Your task to perform on an android device: Do I have any events today? Image 0: 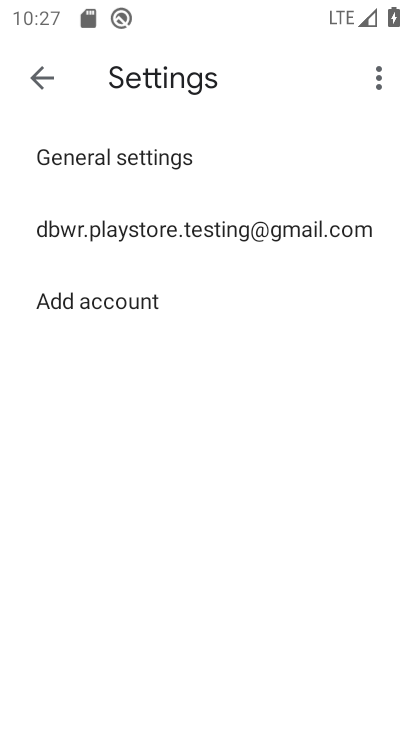
Step 0: press home button
Your task to perform on an android device: Do I have any events today? Image 1: 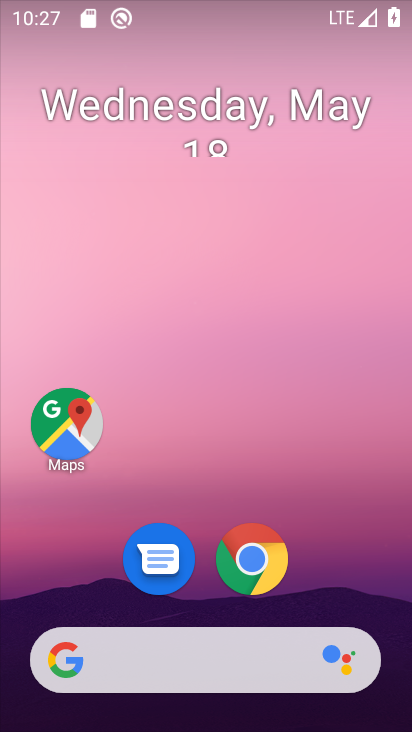
Step 1: drag from (208, 573) to (220, 183)
Your task to perform on an android device: Do I have any events today? Image 2: 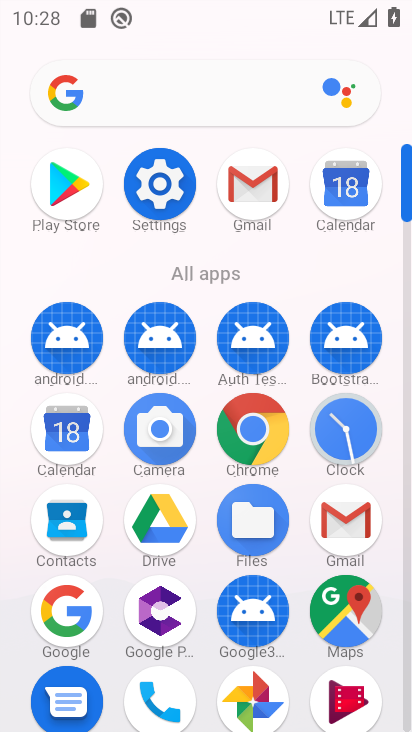
Step 2: click (82, 439)
Your task to perform on an android device: Do I have any events today? Image 3: 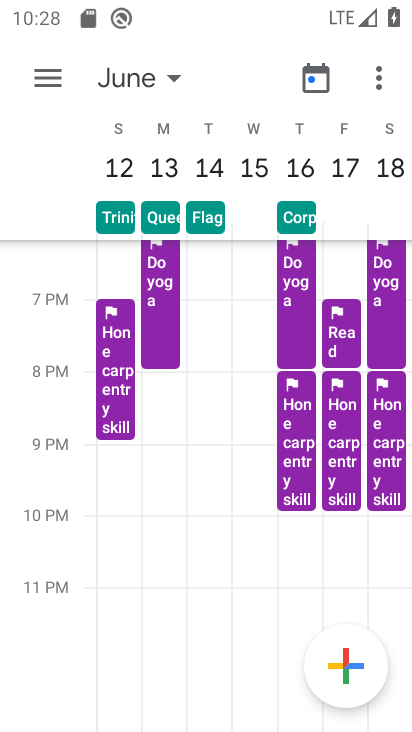
Step 3: click (127, 74)
Your task to perform on an android device: Do I have any events today? Image 4: 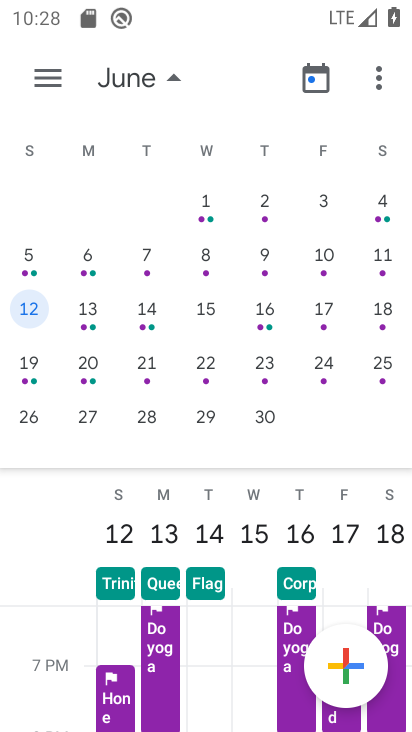
Step 4: drag from (89, 287) to (401, 357)
Your task to perform on an android device: Do I have any events today? Image 5: 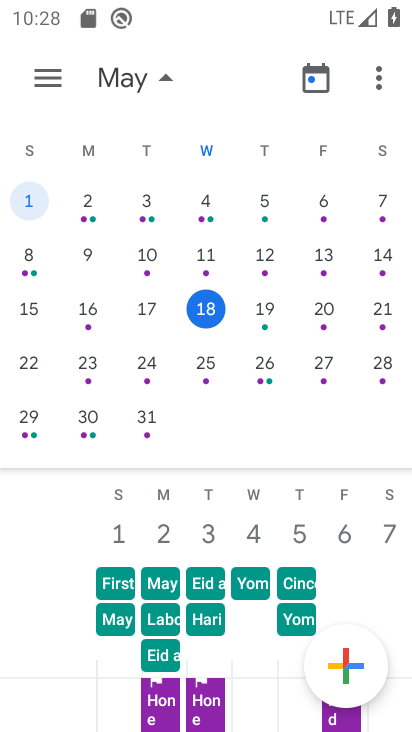
Step 5: click (212, 317)
Your task to perform on an android device: Do I have any events today? Image 6: 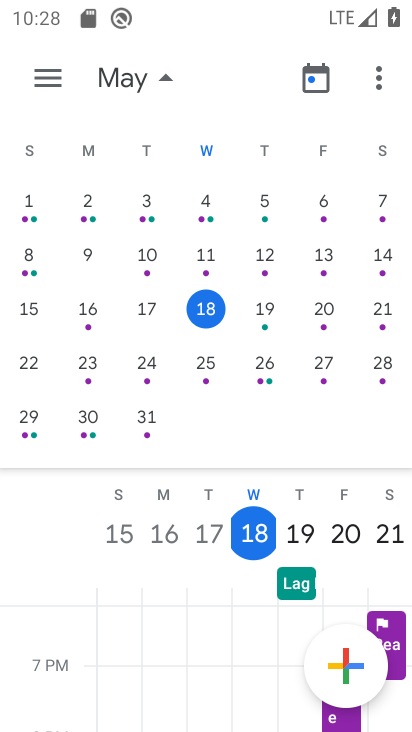
Step 6: click (46, 76)
Your task to perform on an android device: Do I have any events today? Image 7: 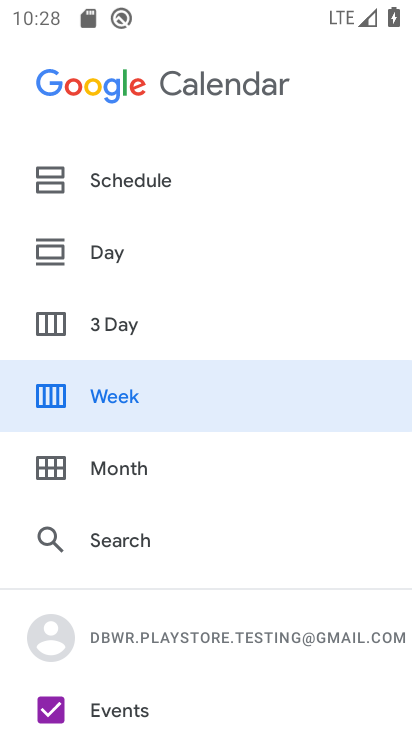
Step 7: drag from (131, 533) to (246, 112)
Your task to perform on an android device: Do I have any events today? Image 8: 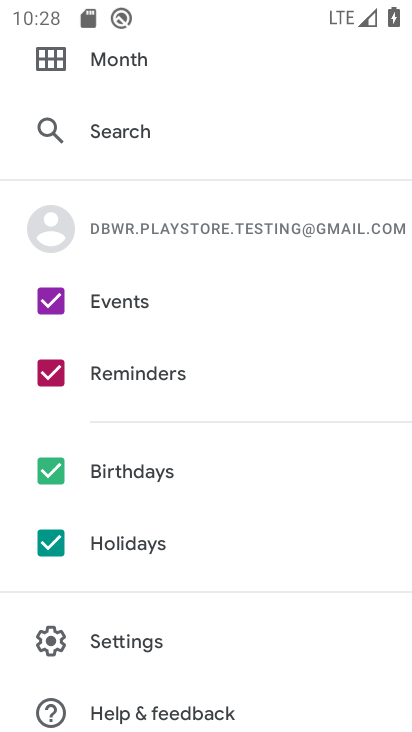
Step 8: click (136, 364)
Your task to perform on an android device: Do I have any events today? Image 9: 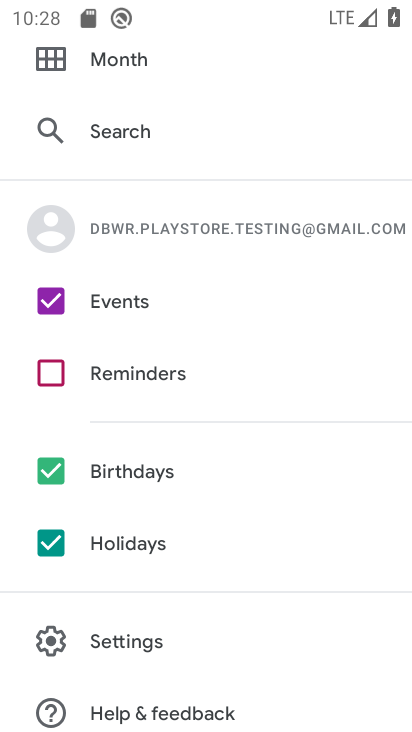
Step 9: click (125, 466)
Your task to perform on an android device: Do I have any events today? Image 10: 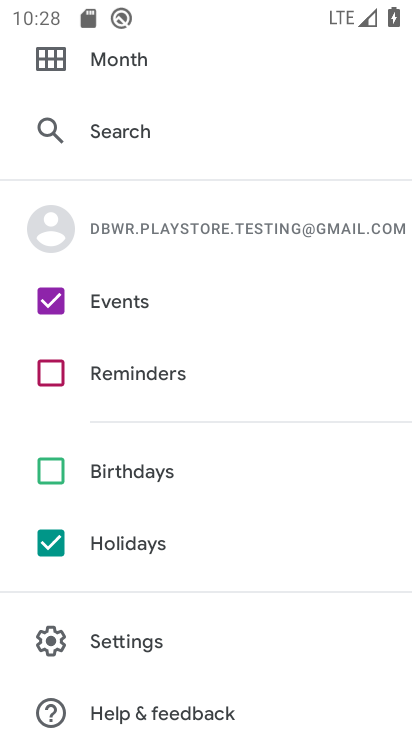
Step 10: click (115, 555)
Your task to perform on an android device: Do I have any events today? Image 11: 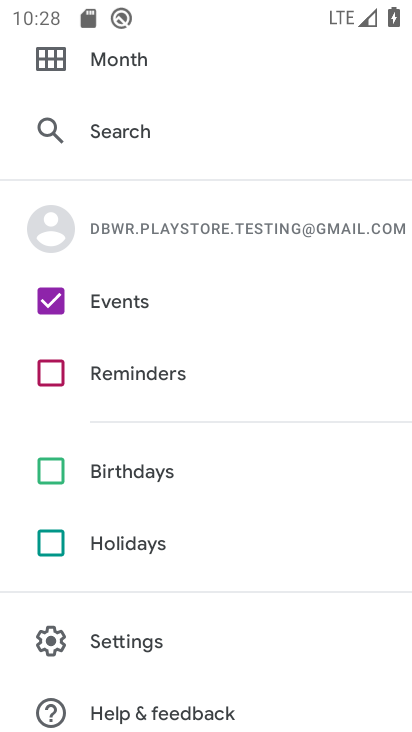
Step 11: drag from (283, 186) to (267, 620)
Your task to perform on an android device: Do I have any events today? Image 12: 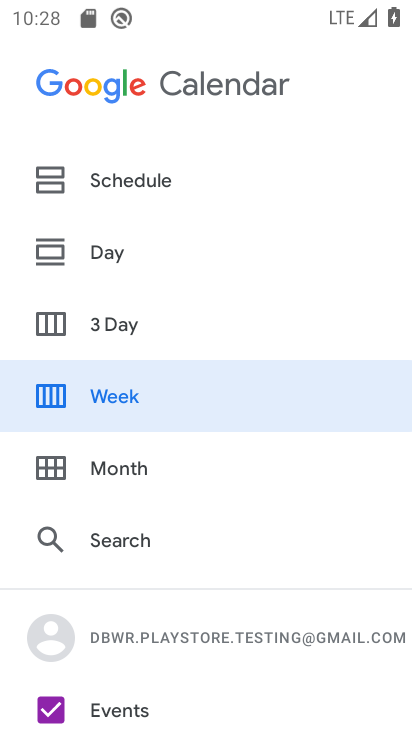
Step 12: click (156, 241)
Your task to perform on an android device: Do I have any events today? Image 13: 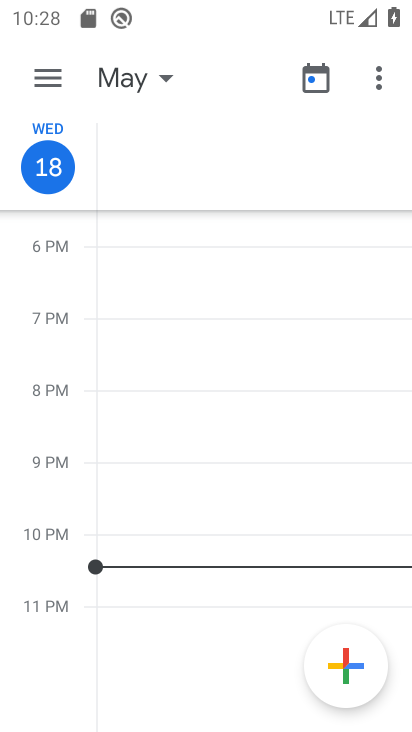
Step 13: task complete